Your task to perform on an android device: Open Chrome and go to the settings page Image 0: 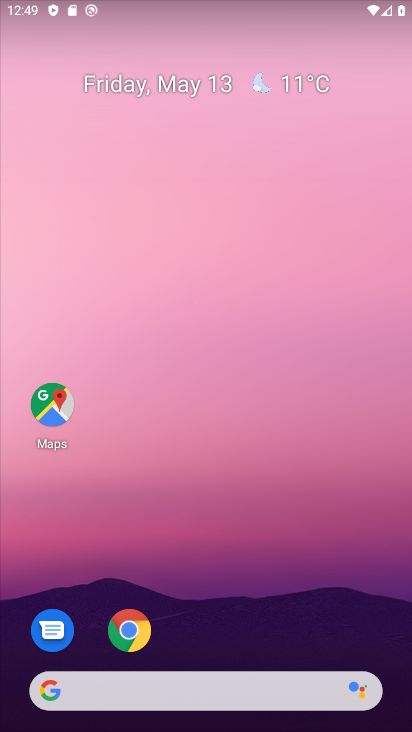
Step 0: drag from (216, 639) to (161, 311)
Your task to perform on an android device: Open Chrome and go to the settings page Image 1: 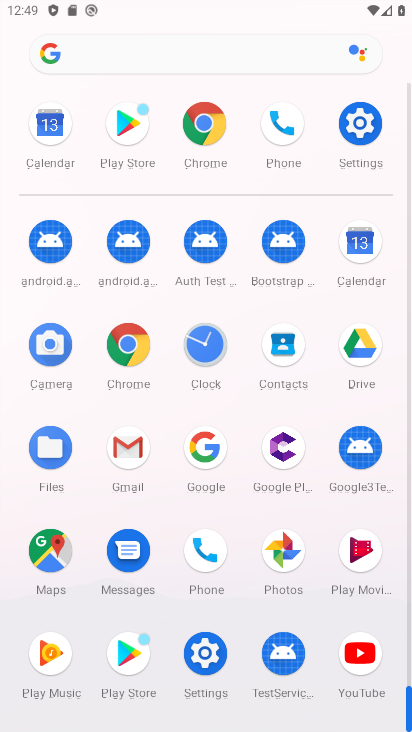
Step 1: click (128, 362)
Your task to perform on an android device: Open Chrome and go to the settings page Image 2: 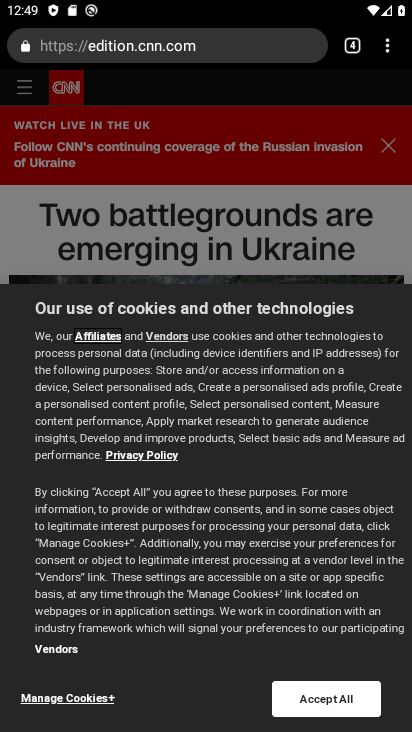
Step 2: click (390, 51)
Your task to perform on an android device: Open Chrome and go to the settings page Image 3: 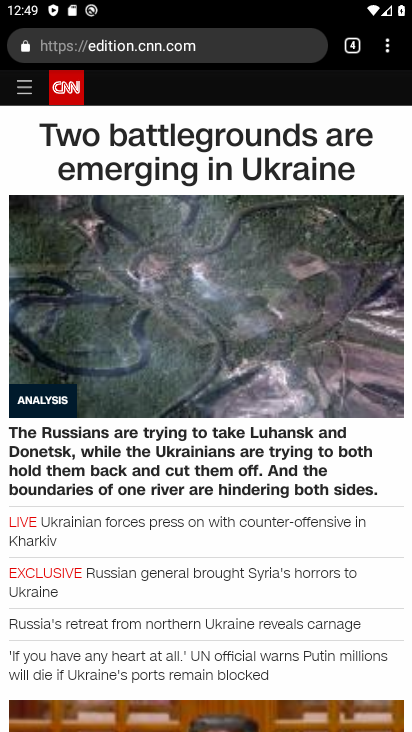
Step 3: click (389, 50)
Your task to perform on an android device: Open Chrome and go to the settings page Image 4: 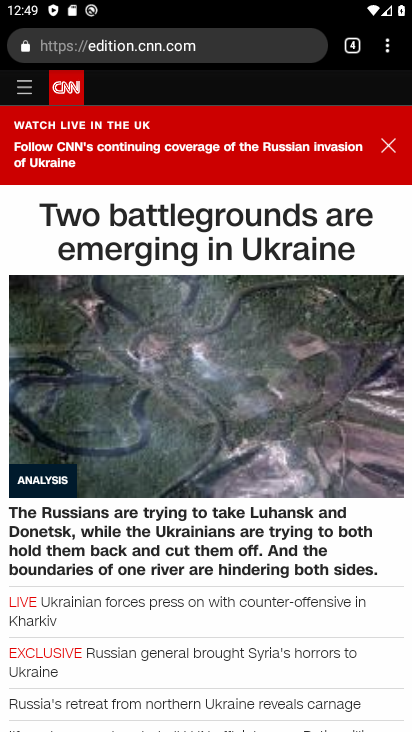
Step 4: click (394, 51)
Your task to perform on an android device: Open Chrome and go to the settings page Image 5: 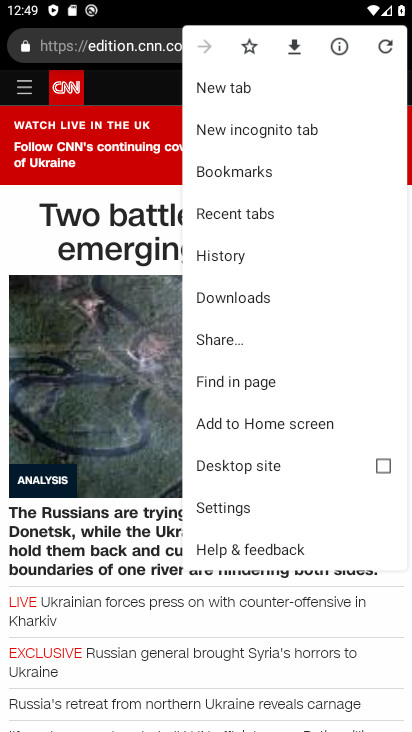
Step 5: click (280, 519)
Your task to perform on an android device: Open Chrome and go to the settings page Image 6: 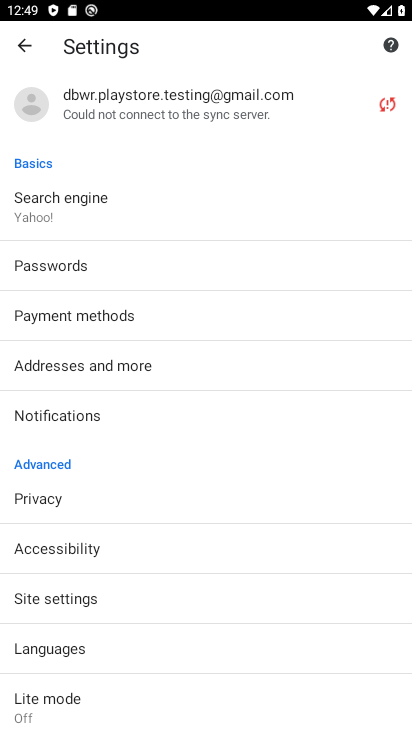
Step 6: task complete